Your task to perform on an android device: set the timer Image 0: 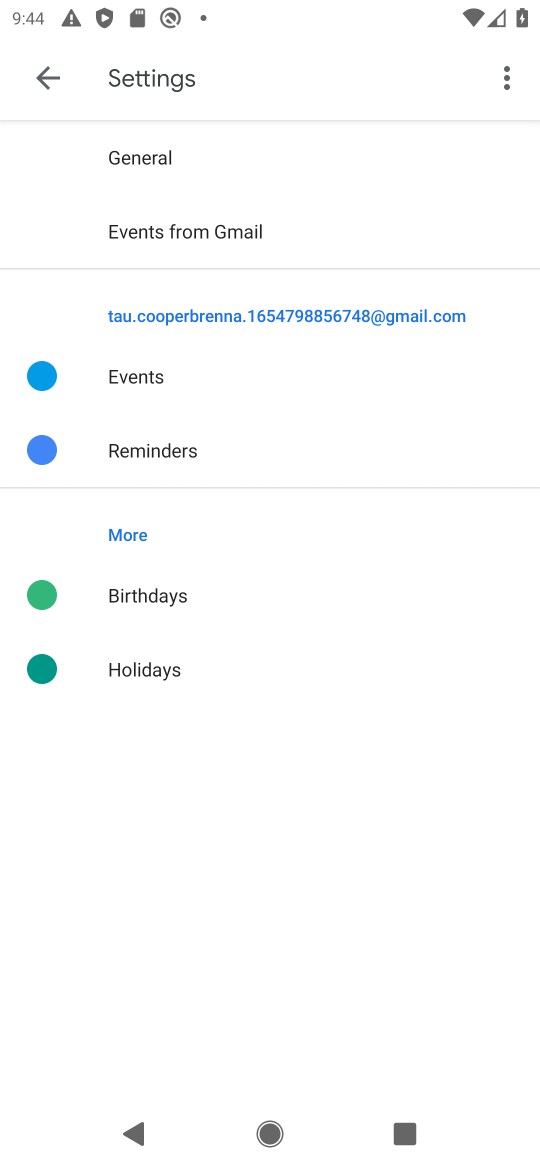
Step 0: press home button
Your task to perform on an android device: set the timer Image 1: 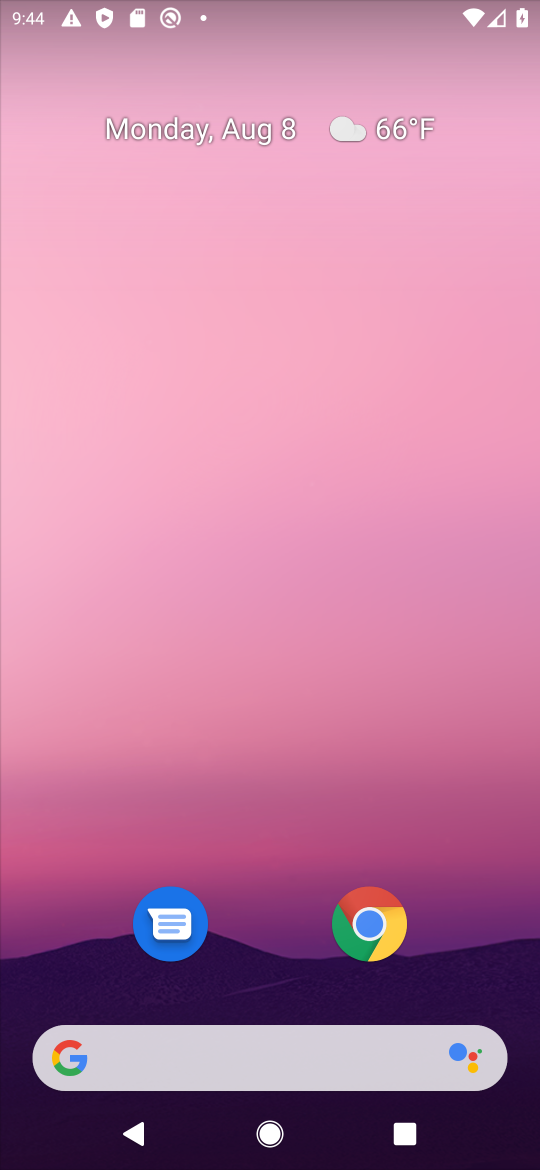
Step 1: drag from (261, 987) to (394, 125)
Your task to perform on an android device: set the timer Image 2: 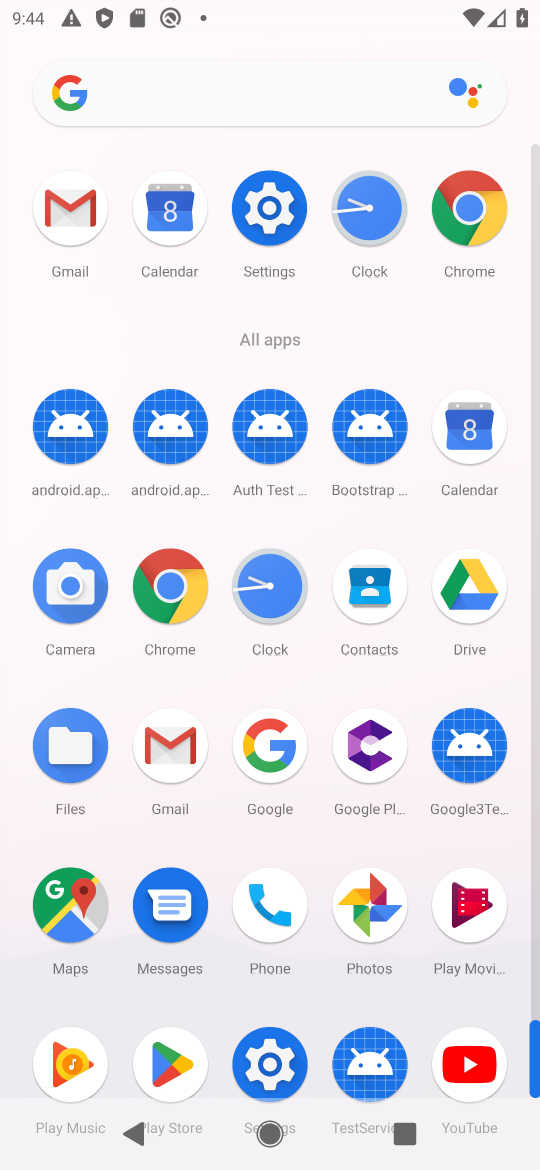
Step 2: click (264, 575)
Your task to perform on an android device: set the timer Image 3: 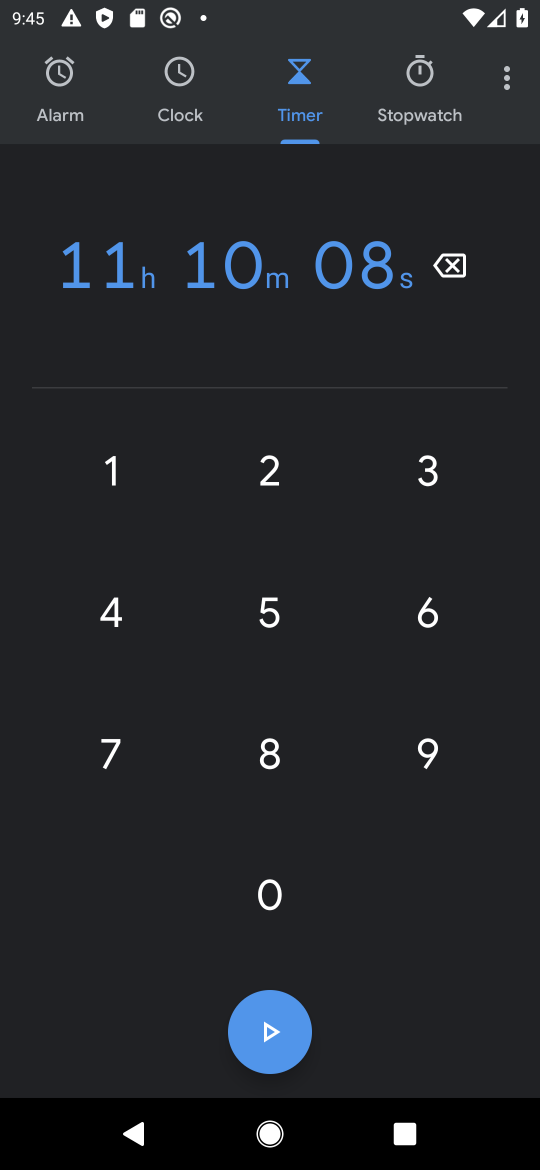
Step 3: click (249, 1013)
Your task to perform on an android device: set the timer Image 4: 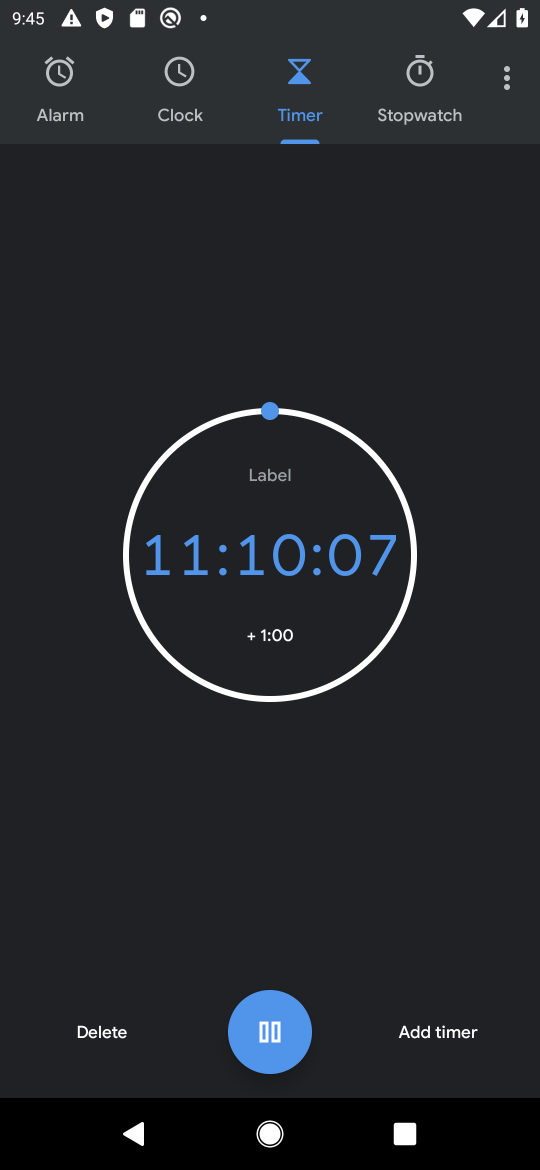
Step 4: task complete